Your task to perform on an android device: Search for sushi restaurants on Maps Image 0: 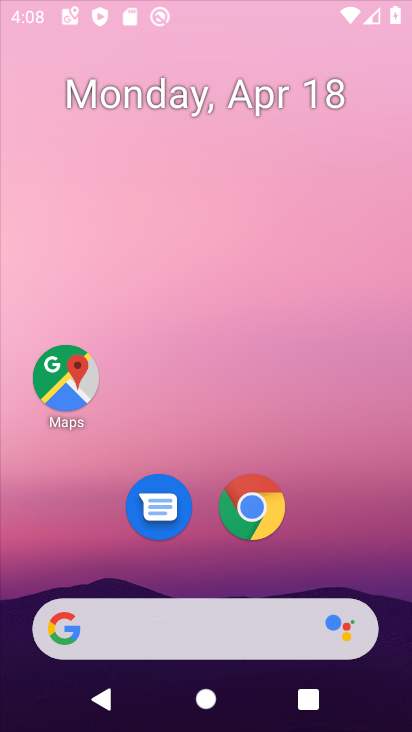
Step 0: click (254, 499)
Your task to perform on an android device: Search for sushi restaurants on Maps Image 1: 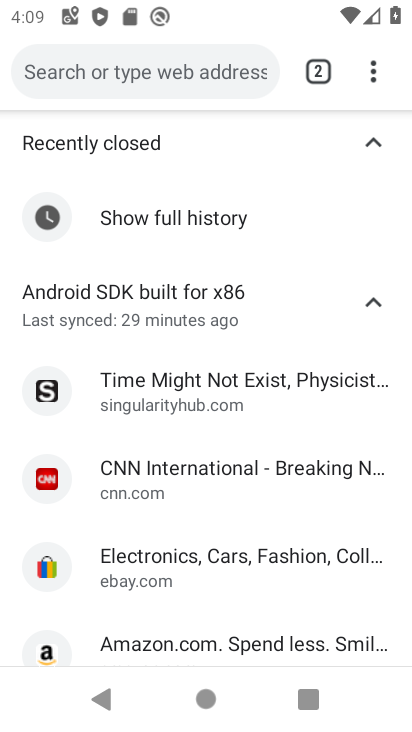
Step 1: press home button
Your task to perform on an android device: Search for sushi restaurants on Maps Image 2: 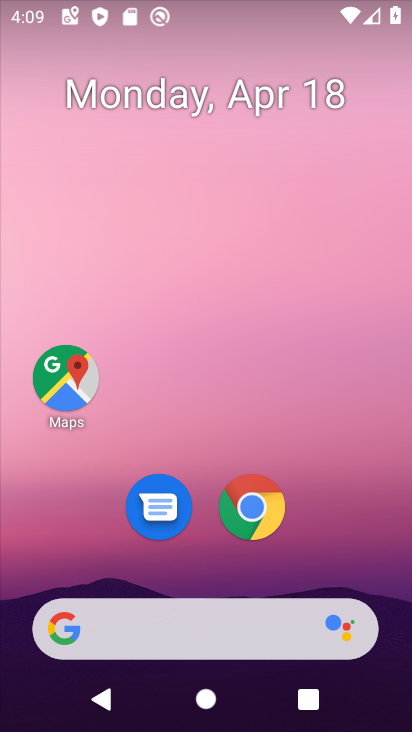
Step 2: click (71, 378)
Your task to perform on an android device: Search for sushi restaurants on Maps Image 3: 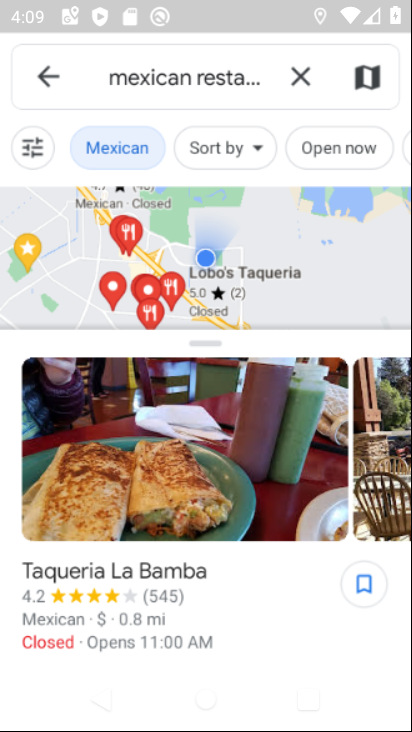
Step 3: click (288, 76)
Your task to perform on an android device: Search for sushi restaurants on Maps Image 4: 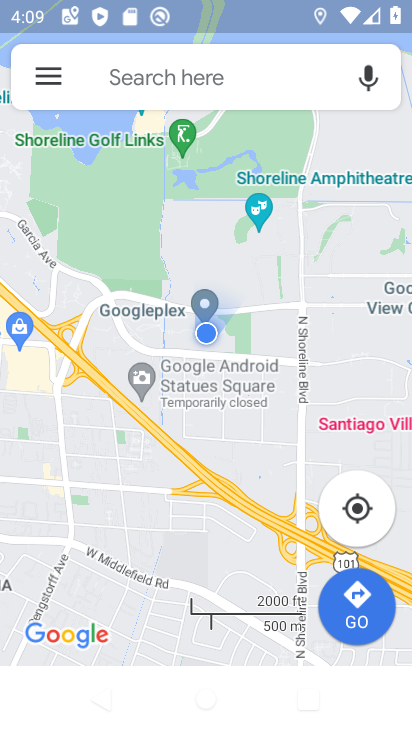
Step 4: click (240, 70)
Your task to perform on an android device: Search for sushi restaurants on Maps Image 5: 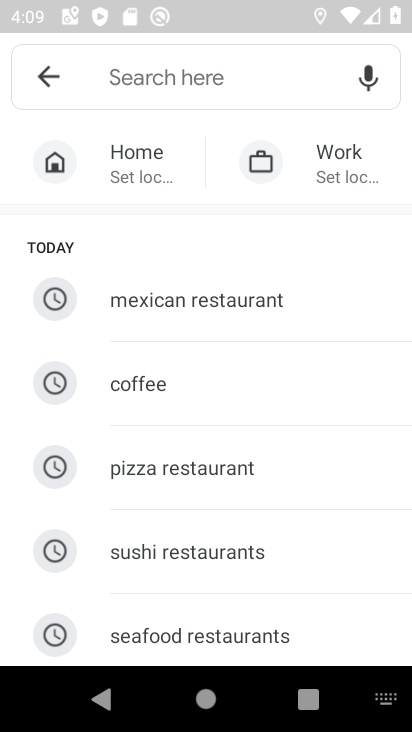
Step 5: click (183, 557)
Your task to perform on an android device: Search for sushi restaurants on Maps Image 6: 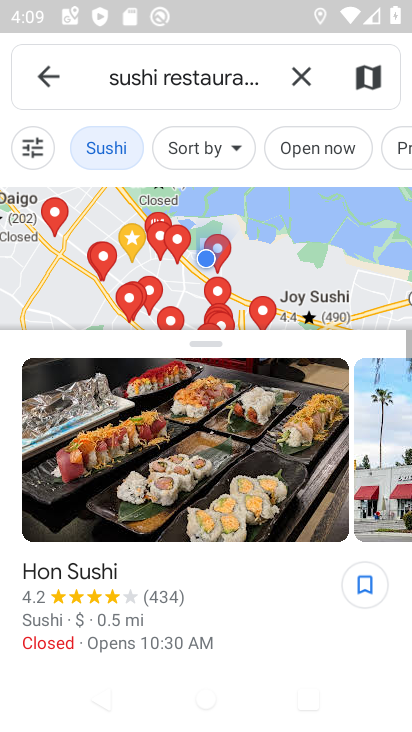
Step 6: task complete